Your task to perform on an android device: Go to notification settings Image 0: 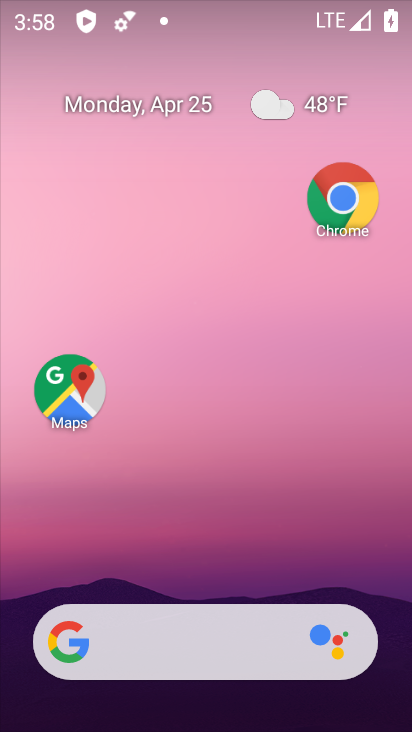
Step 0: drag from (184, 640) to (325, 155)
Your task to perform on an android device: Go to notification settings Image 1: 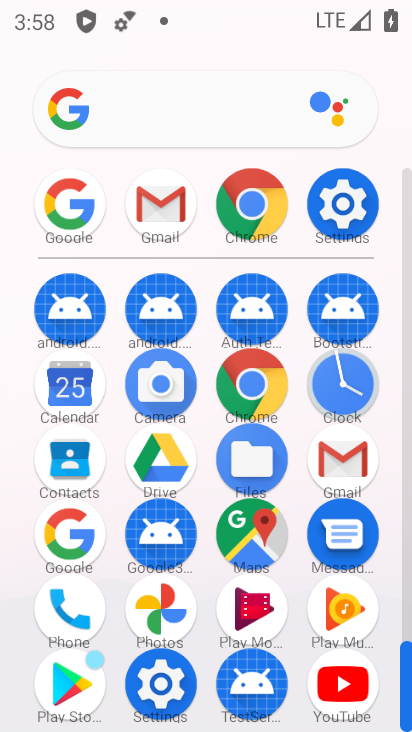
Step 1: click (339, 218)
Your task to perform on an android device: Go to notification settings Image 2: 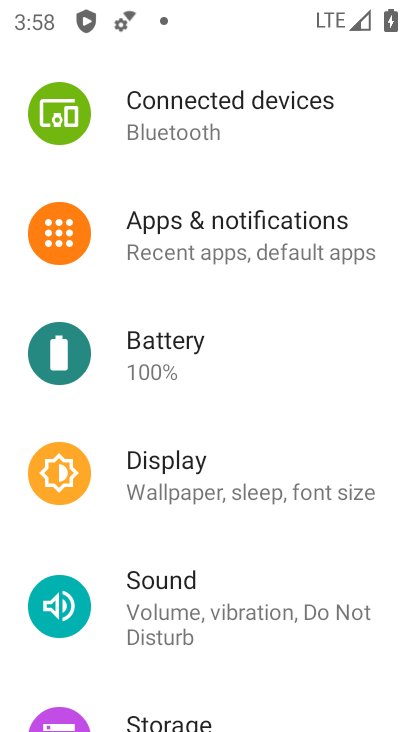
Step 2: click (260, 219)
Your task to perform on an android device: Go to notification settings Image 3: 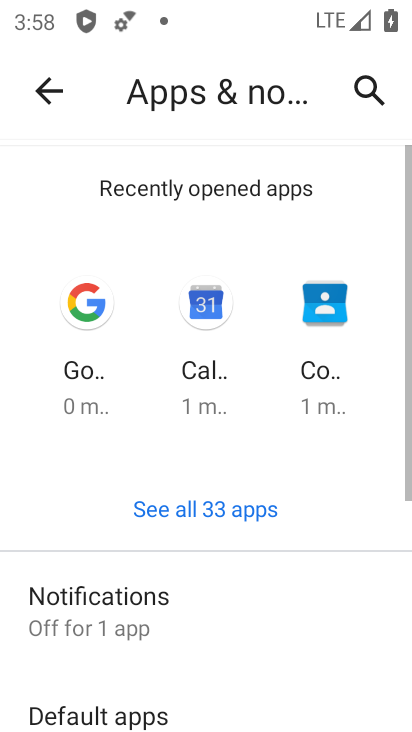
Step 3: click (136, 600)
Your task to perform on an android device: Go to notification settings Image 4: 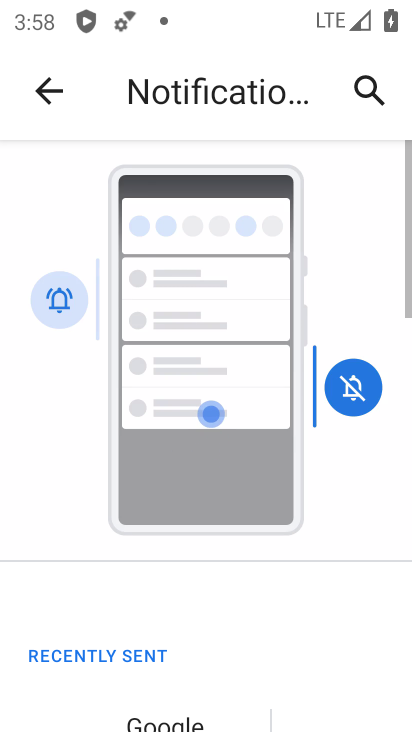
Step 4: task complete